Your task to perform on an android device: turn on airplane mode Image 0: 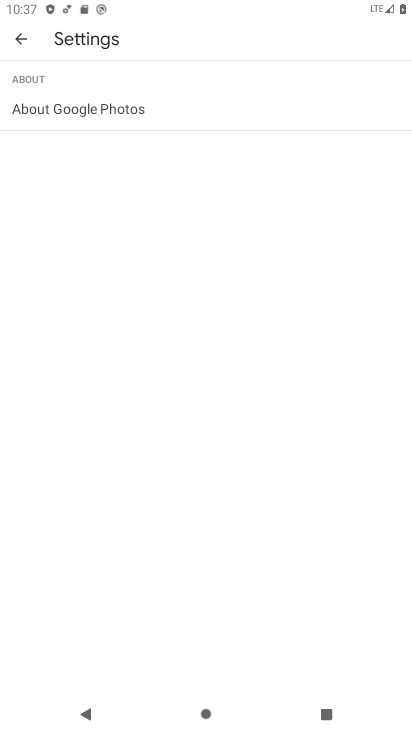
Step 0: press home button
Your task to perform on an android device: turn on airplane mode Image 1: 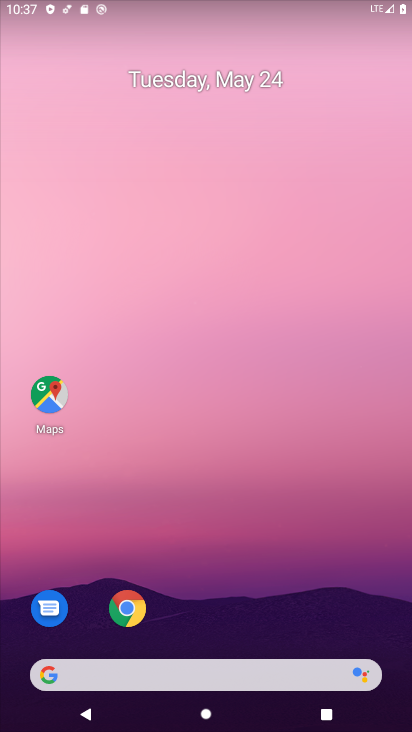
Step 1: drag from (391, 631) to (273, 3)
Your task to perform on an android device: turn on airplane mode Image 2: 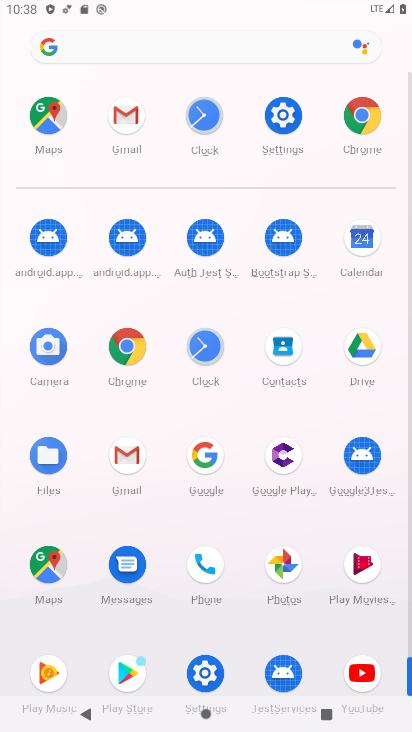
Step 2: click (205, 671)
Your task to perform on an android device: turn on airplane mode Image 3: 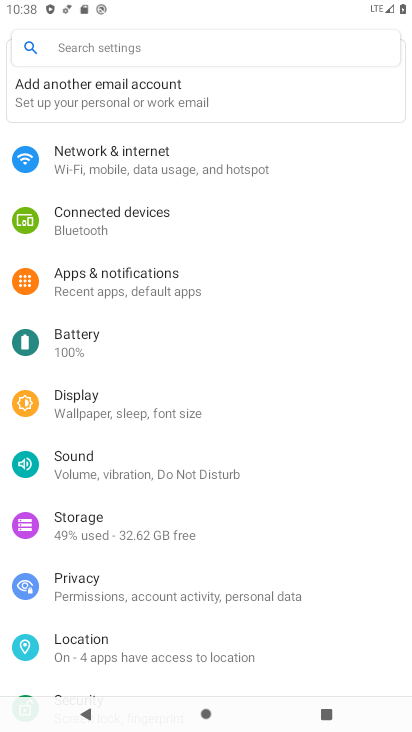
Step 3: click (93, 155)
Your task to perform on an android device: turn on airplane mode Image 4: 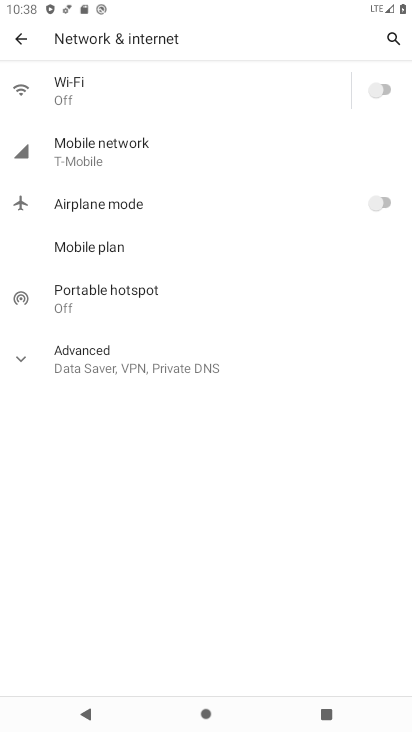
Step 4: click (383, 204)
Your task to perform on an android device: turn on airplane mode Image 5: 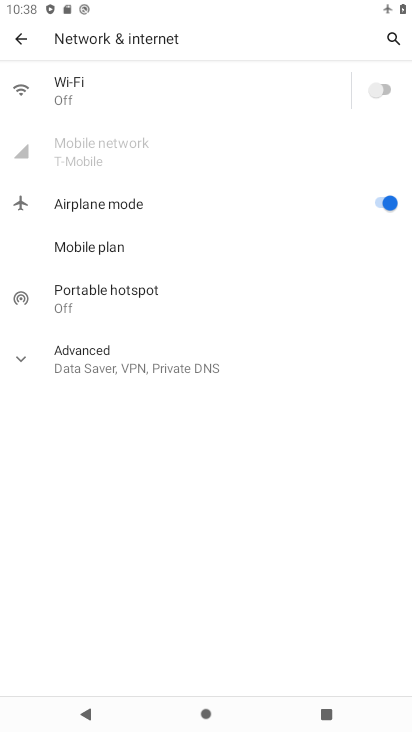
Step 5: task complete